Your task to perform on an android device: all mails in gmail Image 0: 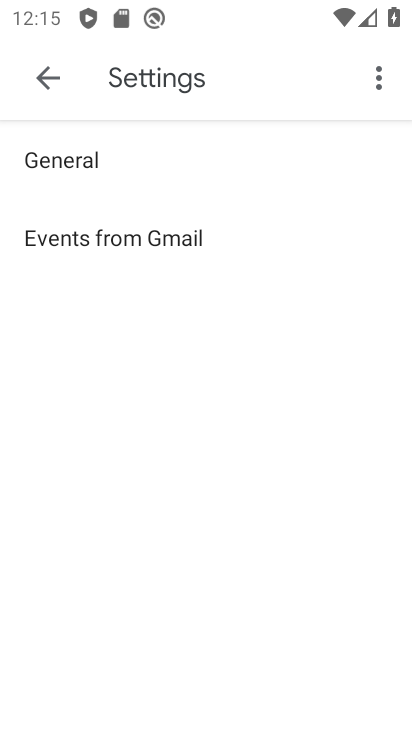
Step 0: press home button
Your task to perform on an android device: all mails in gmail Image 1: 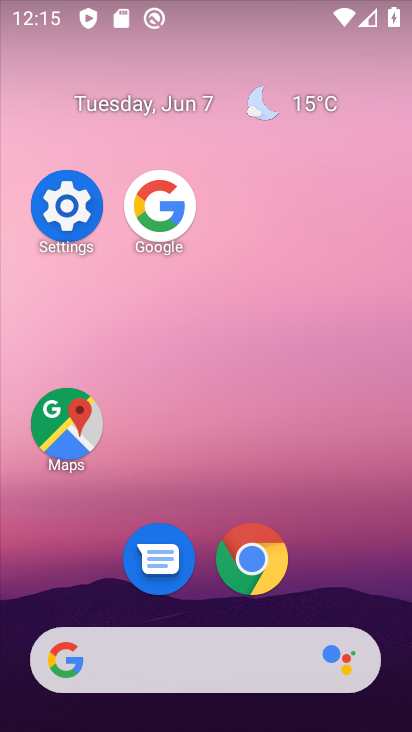
Step 1: drag from (367, 532) to (356, 61)
Your task to perform on an android device: all mails in gmail Image 2: 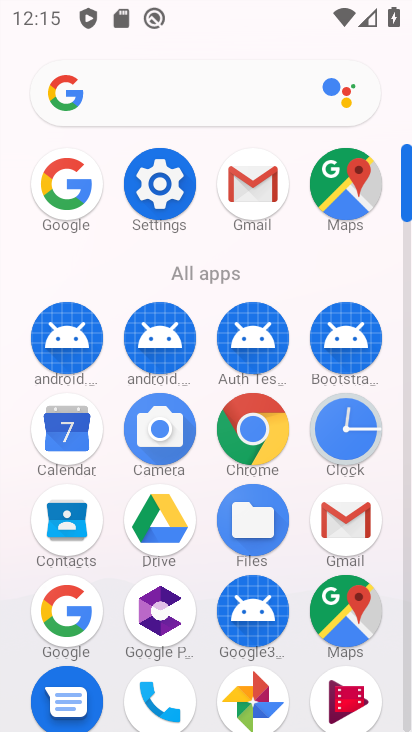
Step 2: drag from (249, 187) to (135, 408)
Your task to perform on an android device: all mails in gmail Image 3: 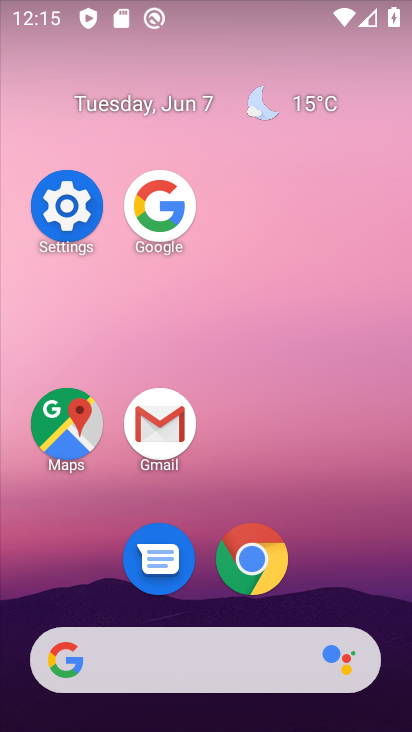
Step 3: click (144, 403)
Your task to perform on an android device: all mails in gmail Image 4: 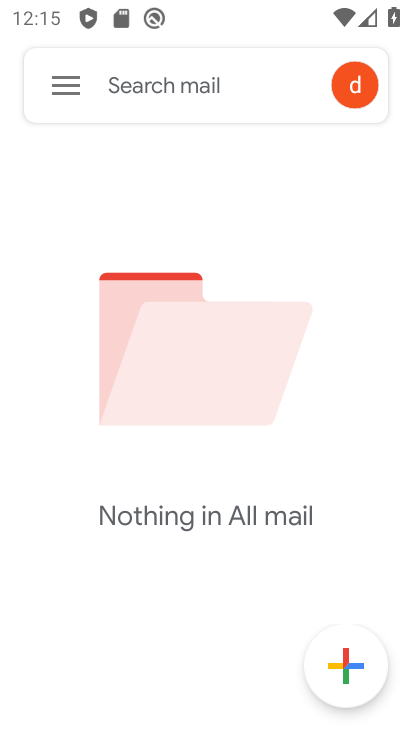
Step 4: click (62, 48)
Your task to perform on an android device: all mails in gmail Image 5: 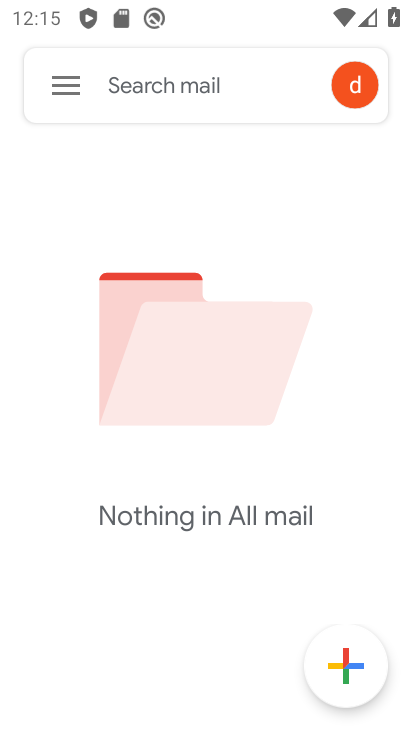
Step 5: task complete